Your task to perform on an android device: turn off location Image 0: 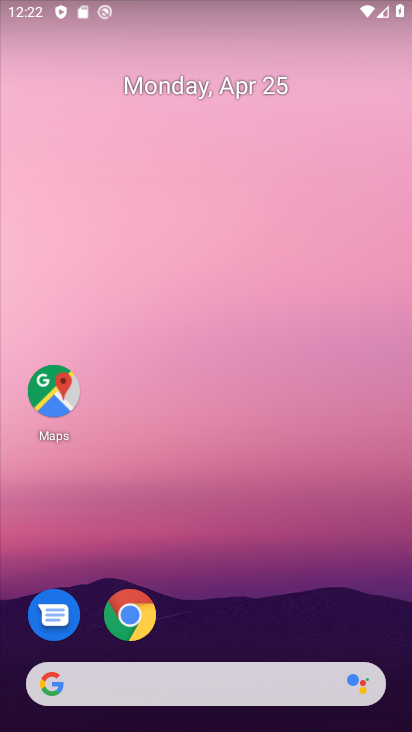
Step 0: drag from (223, 642) to (12, 373)
Your task to perform on an android device: turn off location Image 1: 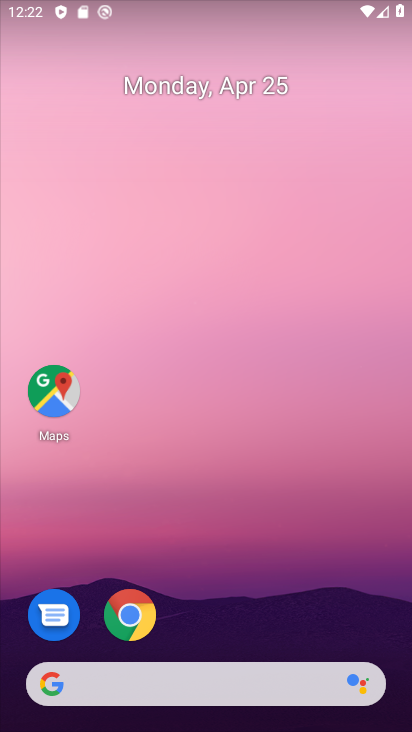
Step 1: click (124, 645)
Your task to perform on an android device: turn off location Image 2: 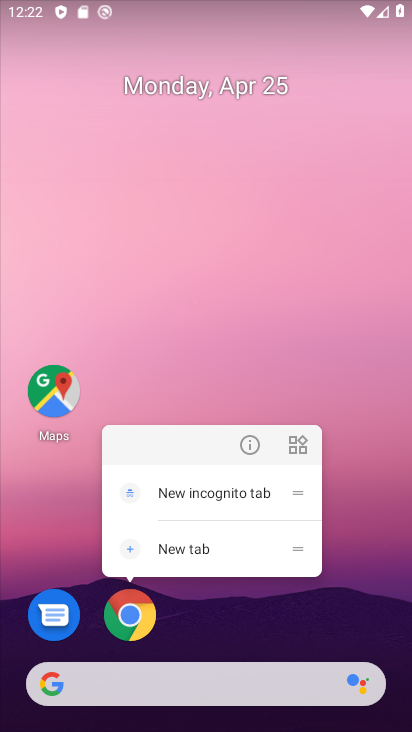
Step 2: click (287, 646)
Your task to perform on an android device: turn off location Image 3: 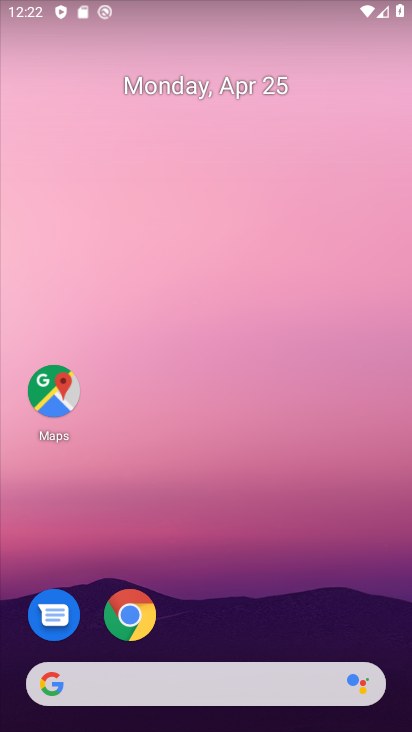
Step 3: drag from (218, 655) to (116, 2)
Your task to perform on an android device: turn off location Image 4: 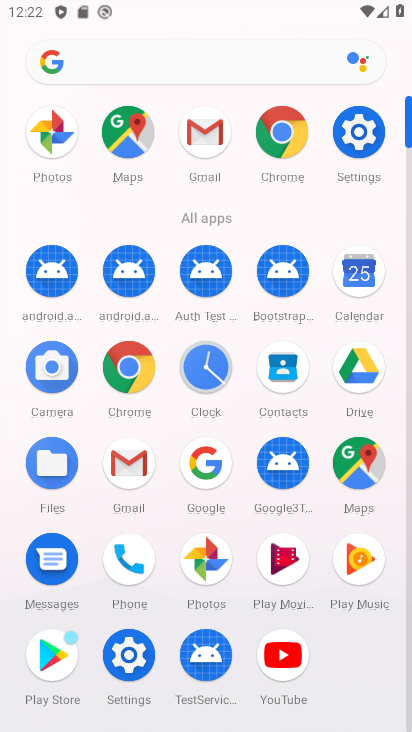
Step 4: click (127, 653)
Your task to perform on an android device: turn off location Image 5: 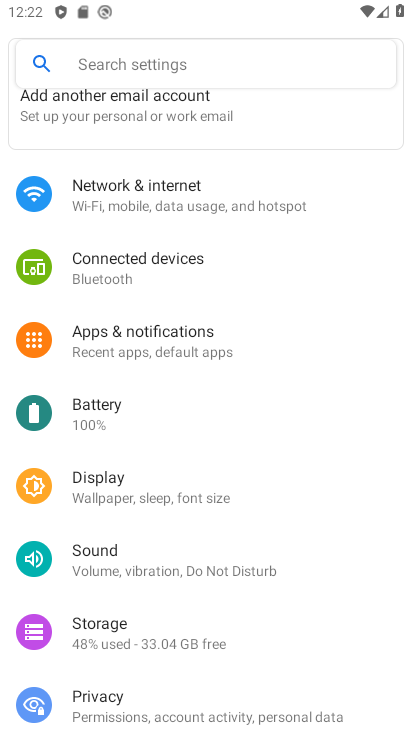
Step 5: drag from (201, 590) to (183, 276)
Your task to perform on an android device: turn off location Image 6: 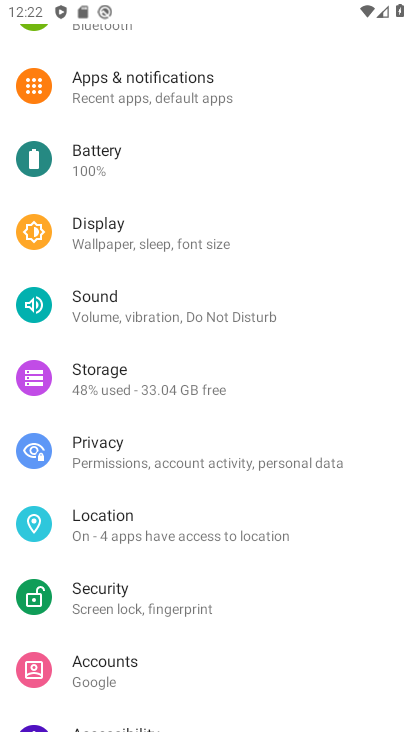
Step 6: click (121, 536)
Your task to perform on an android device: turn off location Image 7: 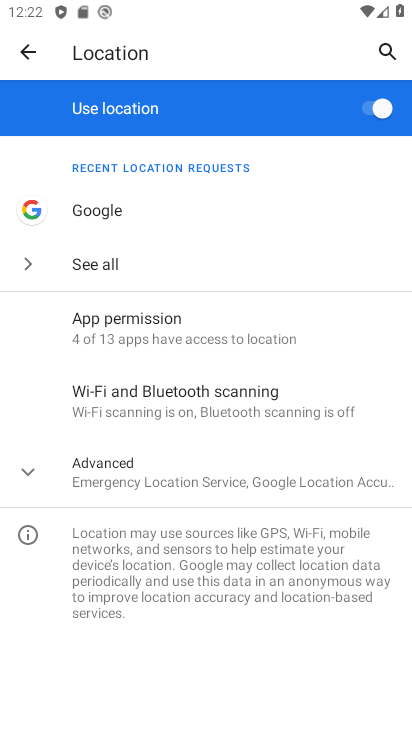
Step 7: click (357, 110)
Your task to perform on an android device: turn off location Image 8: 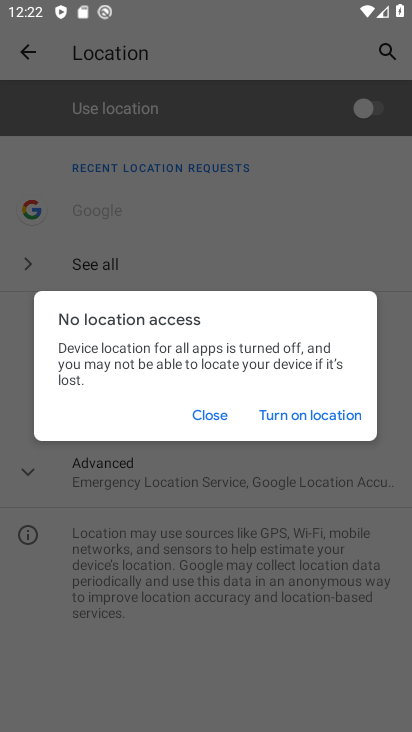
Step 8: task complete